Your task to perform on an android device: allow notifications from all sites in the chrome app Image 0: 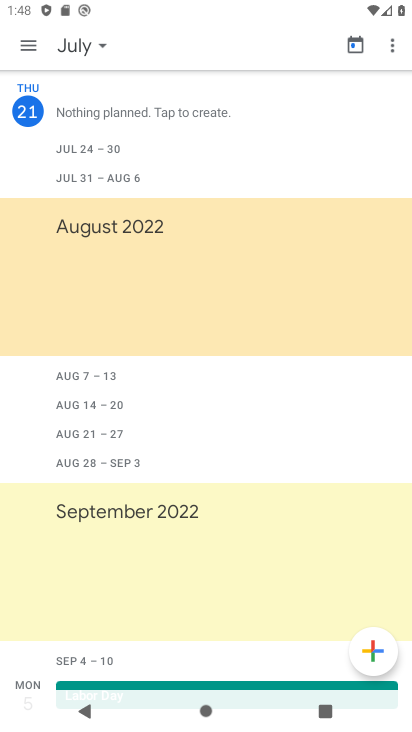
Step 0: drag from (135, 606) to (397, 176)
Your task to perform on an android device: allow notifications from all sites in the chrome app Image 1: 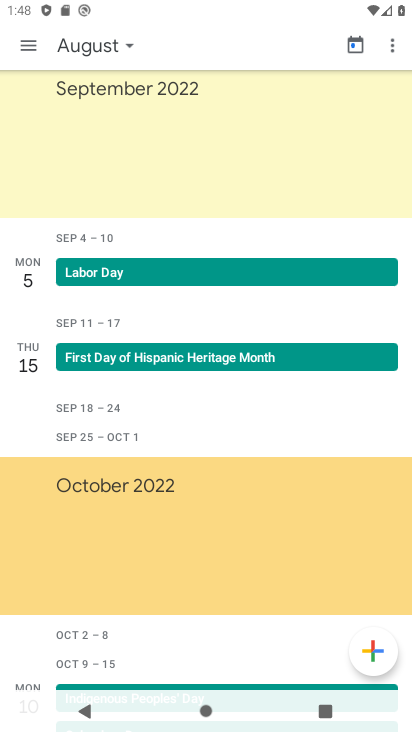
Step 1: drag from (184, 570) to (249, 356)
Your task to perform on an android device: allow notifications from all sites in the chrome app Image 2: 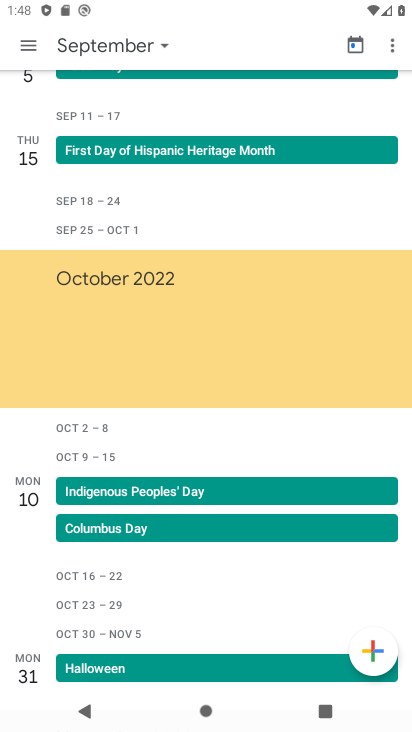
Step 2: press home button
Your task to perform on an android device: allow notifications from all sites in the chrome app Image 3: 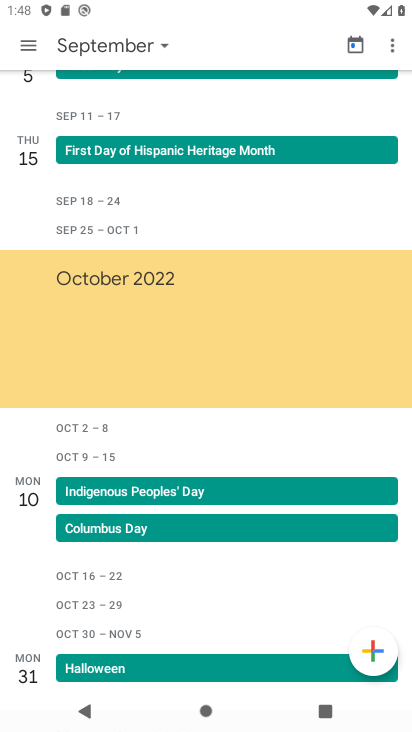
Step 3: press home button
Your task to perform on an android device: allow notifications from all sites in the chrome app Image 4: 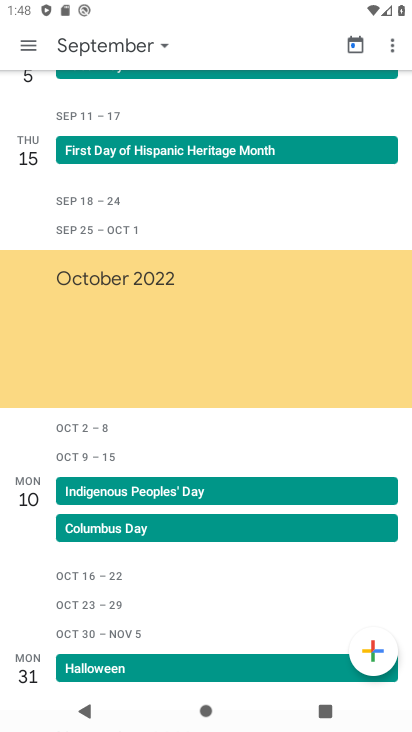
Step 4: drag from (292, 294) to (318, 157)
Your task to perform on an android device: allow notifications from all sites in the chrome app Image 5: 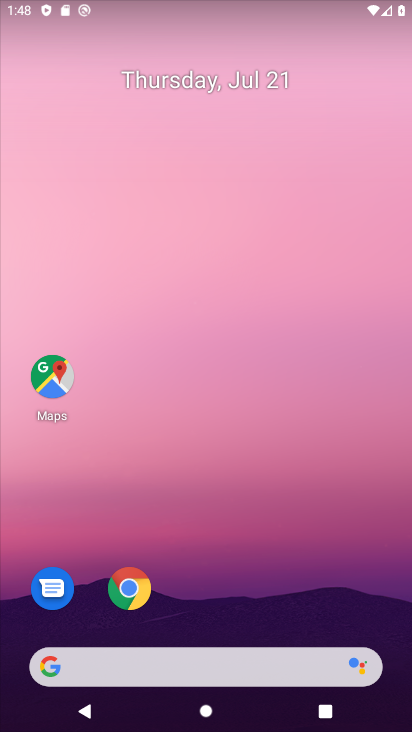
Step 5: drag from (197, 475) to (316, 98)
Your task to perform on an android device: allow notifications from all sites in the chrome app Image 6: 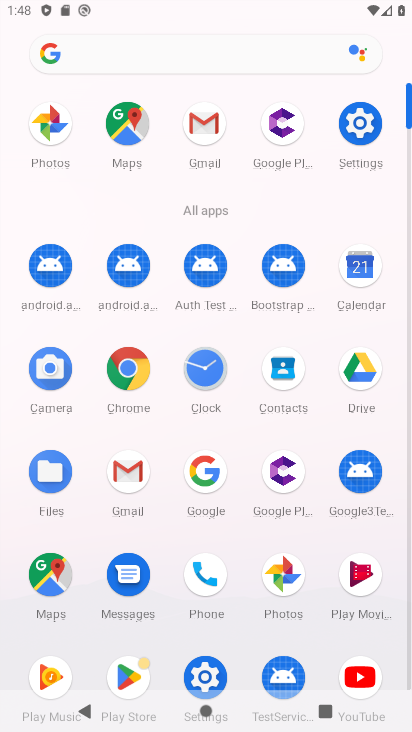
Step 6: click (119, 361)
Your task to perform on an android device: allow notifications from all sites in the chrome app Image 7: 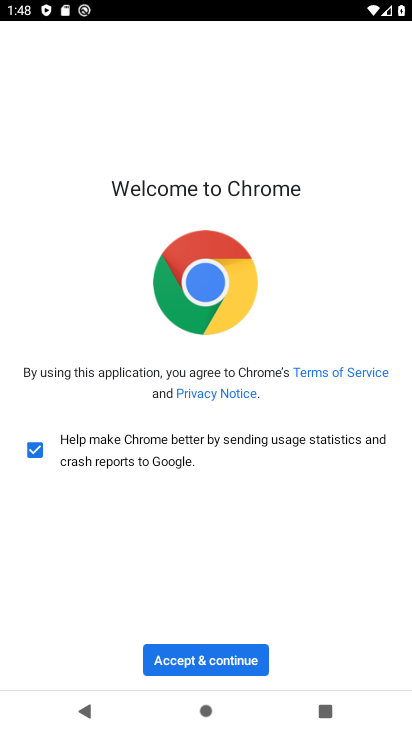
Step 7: click (183, 658)
Your task to perform on an android device: allow notifications from all sites in the chrome app Image 8: 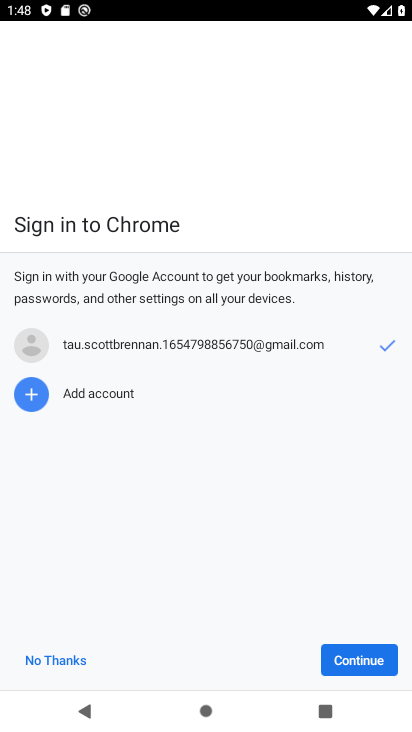
Step 8: click (390, 654)
Your task to perform on an android device: allow notifications from all sites in the chrome app Image 9: 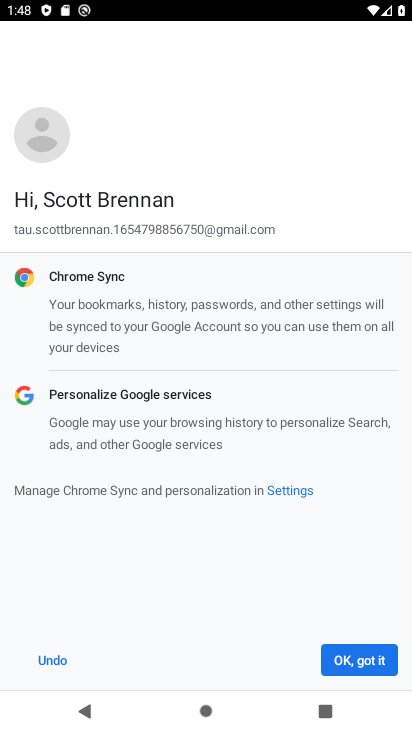
Step 9: click (358, 661)
Your task to perform on an android device: allow notifications from all sites in the chrome app Image 10: 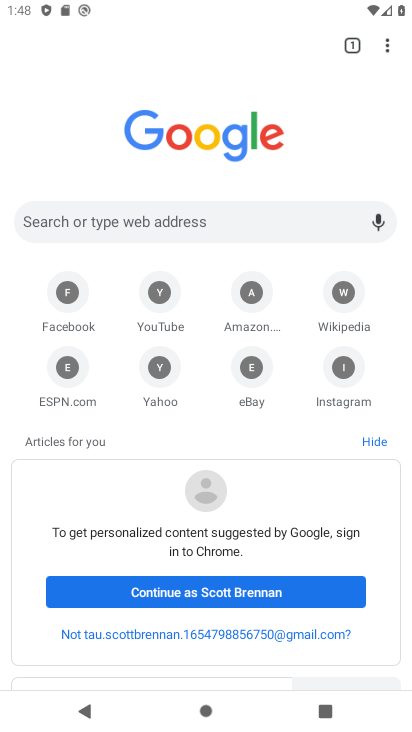
Step 10: drag from (244, 469) to (346, 309)
Your task to perform on an android device: allow notifications from all sites in the chrome app Image 11: 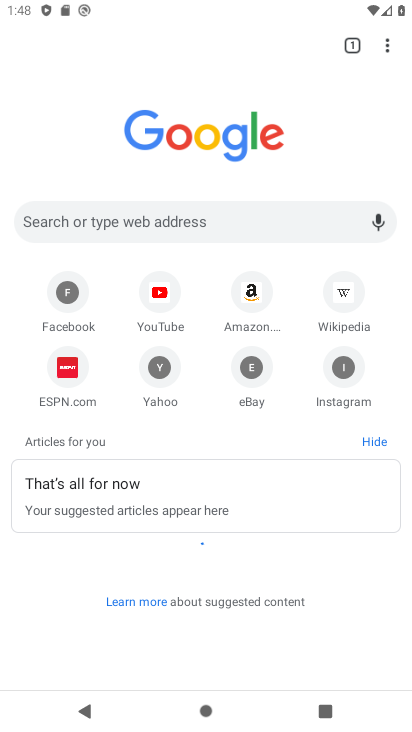
Step 11: drag from (199, 554) to (331, 206)
Your task to perform on an android device: allow notifications from all sites in the chrome app Image 12: 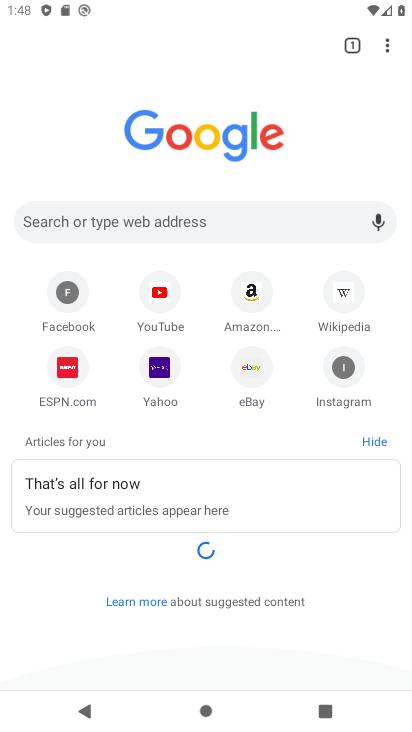
Step 12: drag from (329, 168) to (287, 727)
Your task to perform on an android device: allow notifications from all sites in the chrome app Image 13: 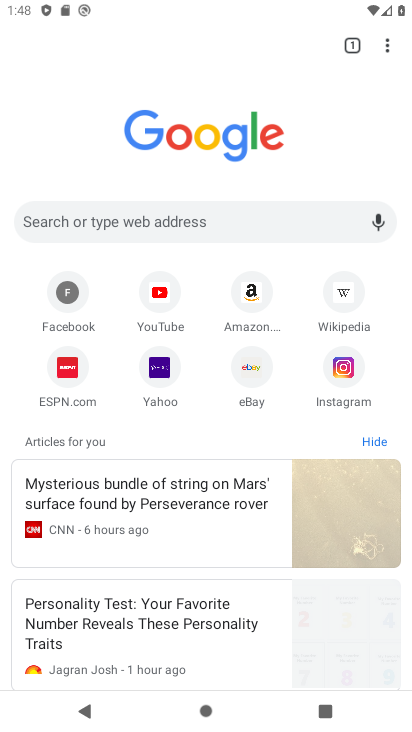
Step 13: drag from (383, 47) to (256, 384)
Your task to perform on an android device: allow notifications from all sites in the chrome app Image 14: 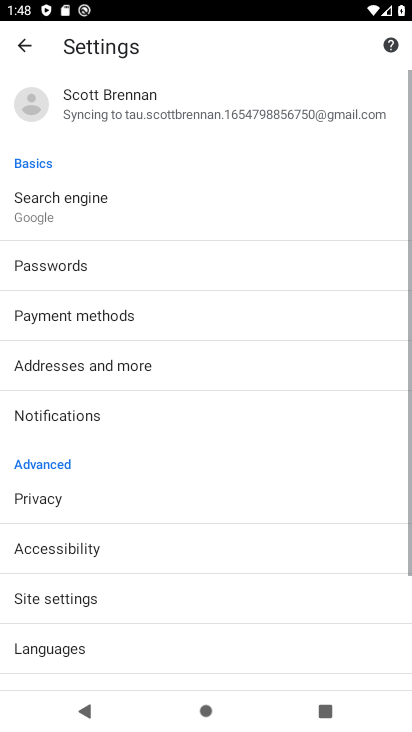
Step 14: drag from (173, 544) to (289, 126)
Your task to perform on an android device: allow notifications from all sites in the chrome app Image 15: 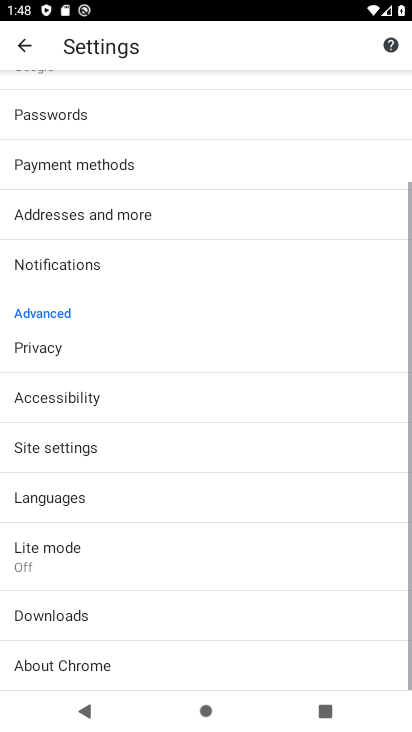
Step 15: click (73, 452)
Your task to perform on an android device: allow notifications from all sites in the chrome app Image 16: 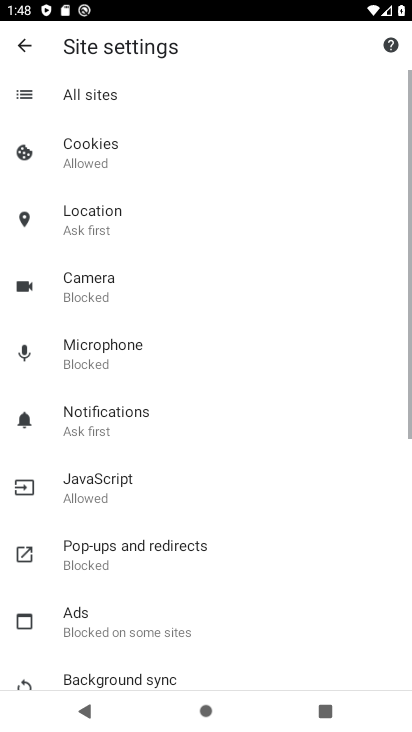
Step 16: drag from (159, 524) to (284, 189)
Your task to perform on an android device: allow notifications from all sites in the chrome app Image 17: 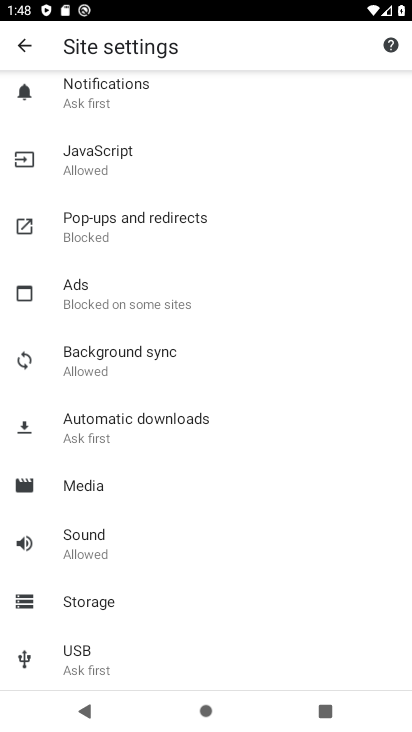
Step 17: click (144, 89)
Your task to perform on an android device: allow notifications from all sites in the chrome app Image 18: 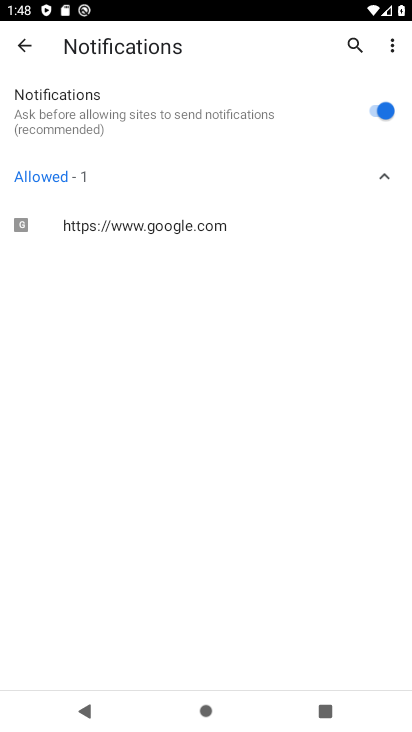
Step 18: task complete